Your task to perform on an android device: turn on translation in the chrome app Image 0: 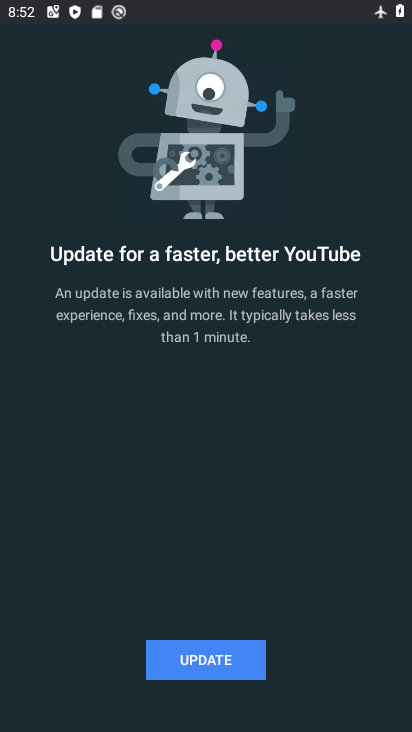
Step 0: press back button
Your task to perform on an android device: turn on translation in the chrome app Image 1: 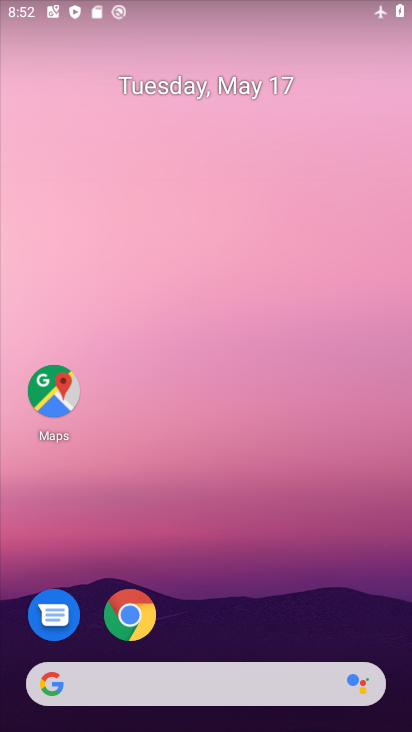
Step 1: drag from (272, 432) to (292, 134)
Your task to perform on an android device: turn on translation in the chrome app Image 2: 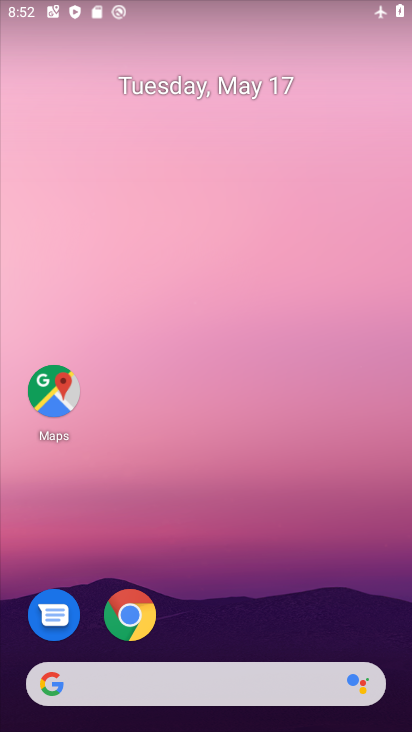
Step 2: drag from (231, 635) to (267, 211)
Your task to perform on an android device: turn on translation in the chrome app Image 3: 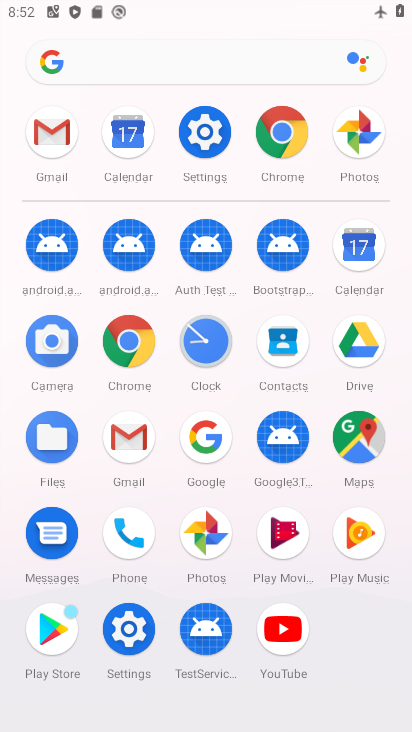
Step 3: click (114, 331)
Your task to perform on an android device: turn on translation in the chrome app Image 4: 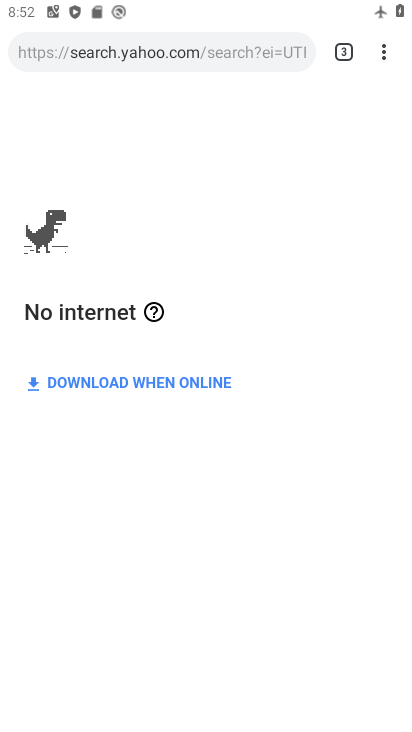
Step 4: click (378, 54)
Your task to perform on an android device: turn on translation in the chrome app Image 5: 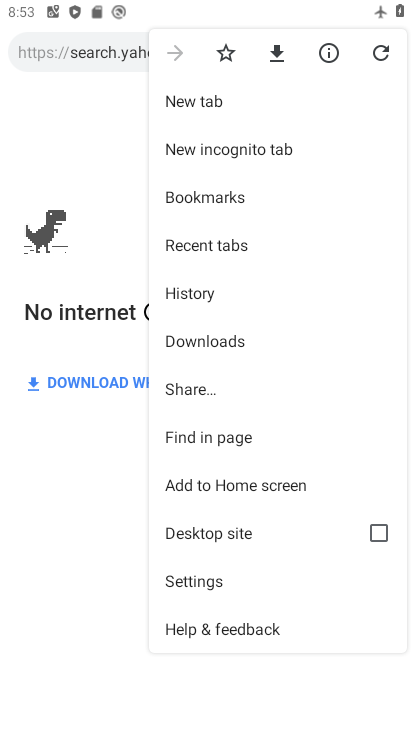
Step 5: click (217, 575)
Your task to perform on an android device: turn on translation in the chrome app Image 6: 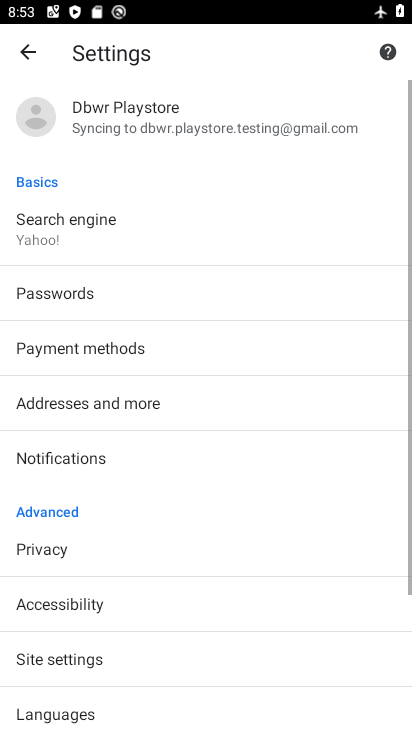
Step 6: drag from (116, 618) to (192, 450)
Your task to perform on an android device: turn on translation in the chrome app Image 7: 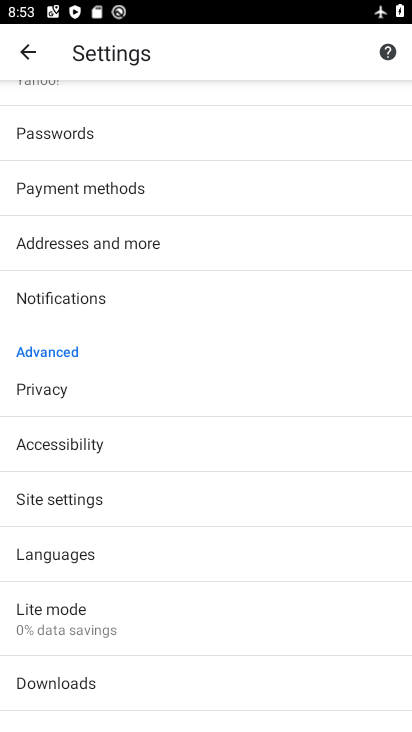
Step 7: click (101, 559)
Your task to perform on an android device: turn on translation in the chrome app Image 8: 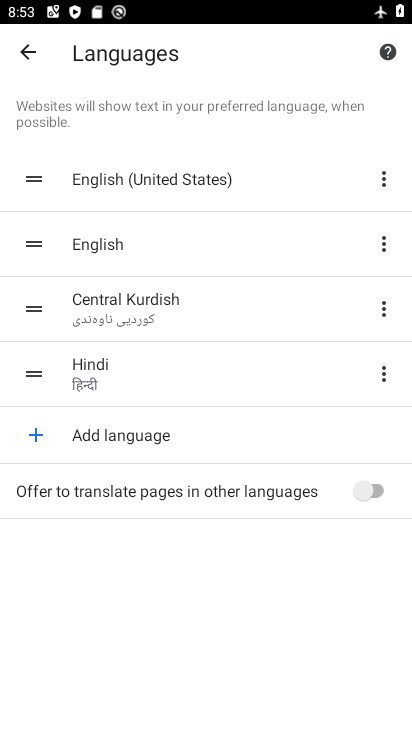
Step 8: click (362, 490)
Your task to perform on an android device: turn on translation in the chrome app Image 9: 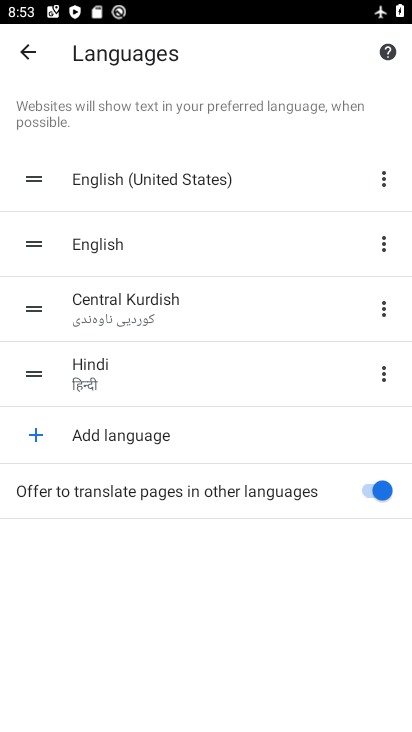
Step 9: task complete